Your task to perform on an android device: Open my contact list Image 0: 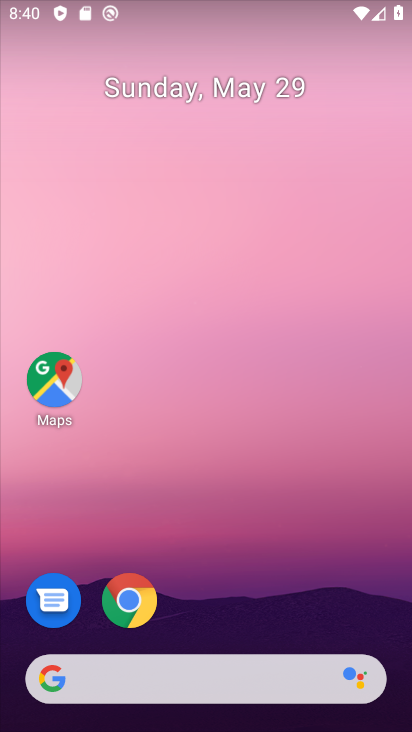
Step 0: drag from (232, 728) to (234, 108)
Your task to perform on an android device: Open my contact list Image 1: 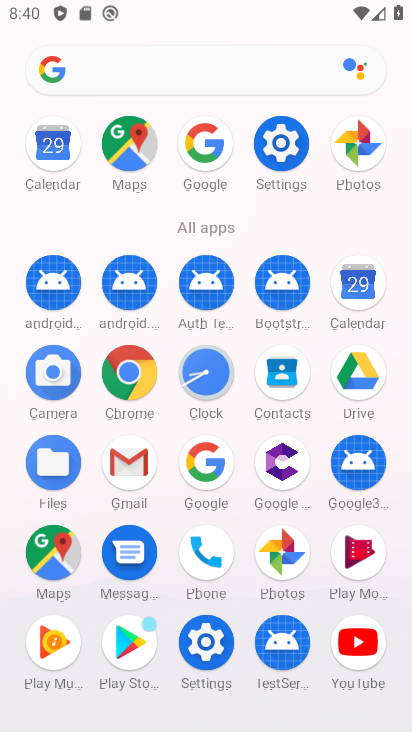
Step 1: click (283, 378)
Your task to perform on an android device: Open my contact list Image 2: 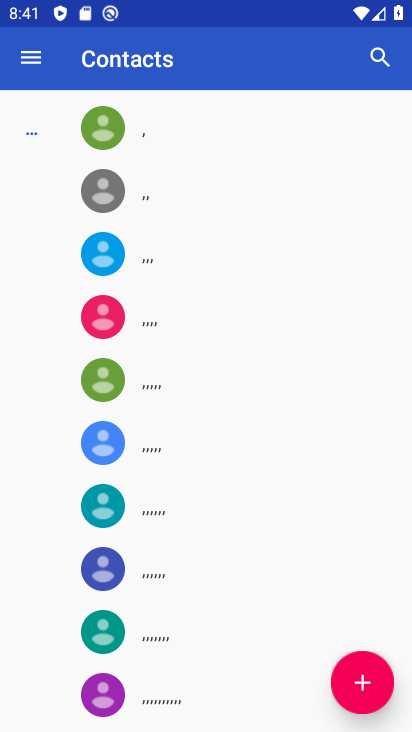
Step 2: task complete